Your task to perform on an android device: What's on my calendar today? Image 0: 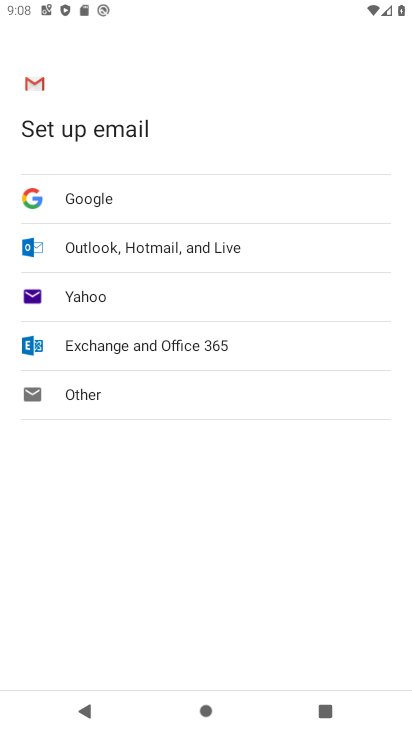
Step 0: press home button
Your task to perform on an android device: What's on my calendar today? Image 1: 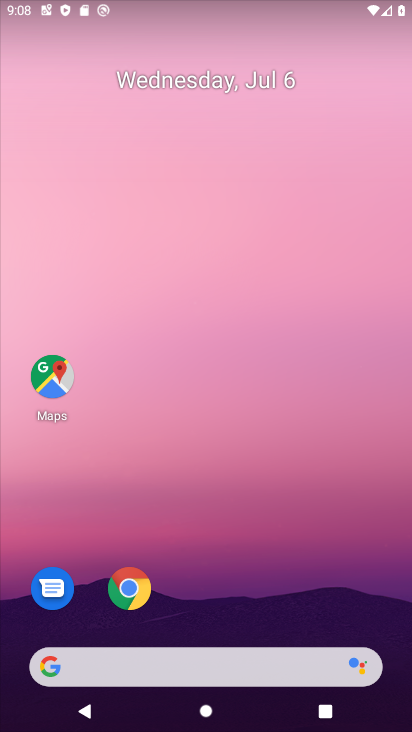
Step 1: drag from (115, 669) to (276, 32)
Your task to perform on an android device: What's on my calendar today? Image 2: 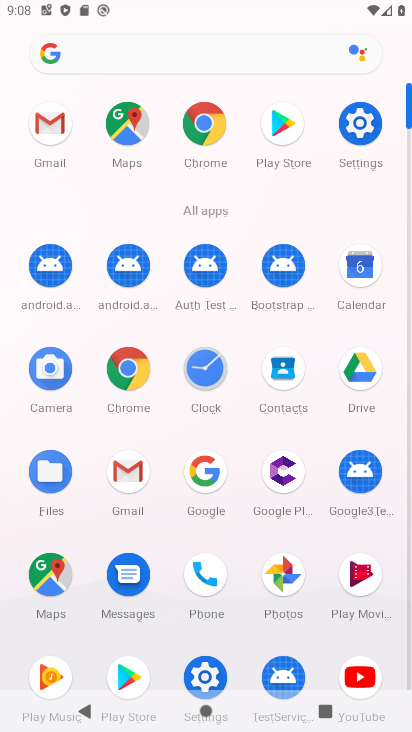
Step 2: click (352, 273)
Your task to perform on an android device: What's on my calendar today? Image 3: 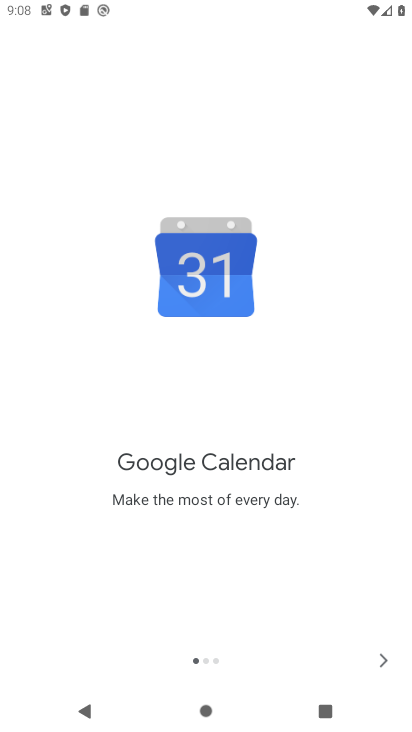
Step 3: click (387, 663)
Your task to perform on an android device: What's on my calendar today? Image 4: 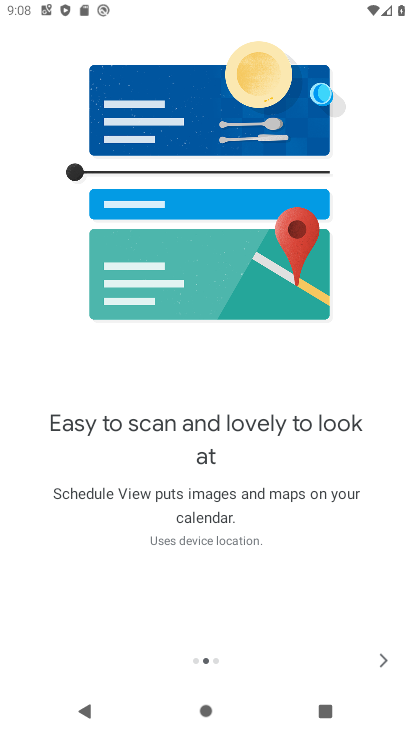
Step 4: click (387, 663)
Your task to perform on an android device: What's on my calendar today? Image 5: 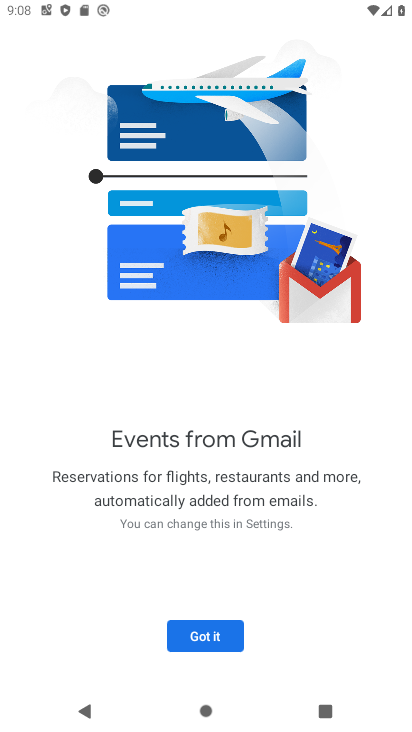
Step 5: click (192, 631)
Your task to perform on an android device: What's on my calendar today? Image 6: 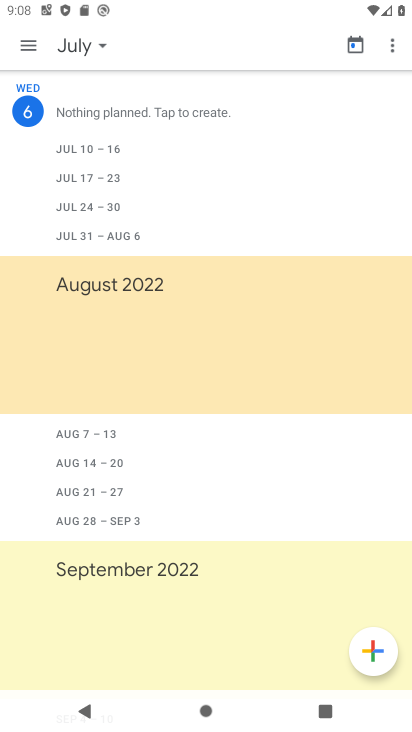
Step 6: click (92, 46)
Your task to perform on an android device: What's on my calendar today? Image 7: 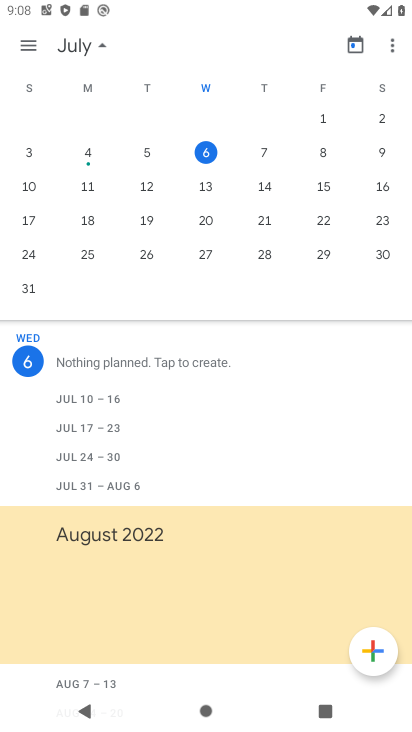
Step 7: click (208, 151)
Your task to perform on an android device: What's on my calendar today? Image 8: 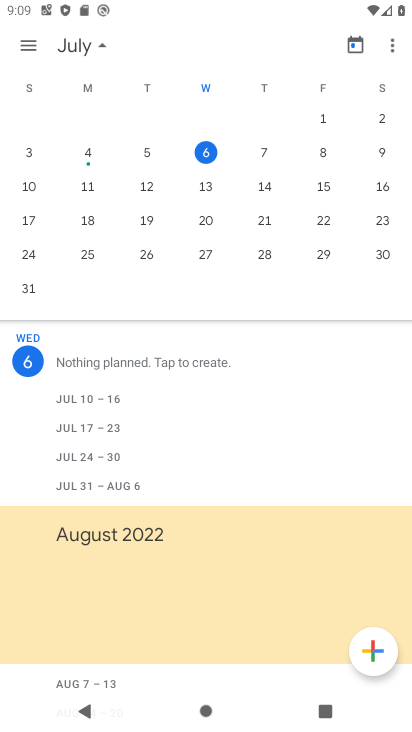
Step 8: click (32, 47)
Your task to perform on an android device: What's on my calendar today? Image 9: 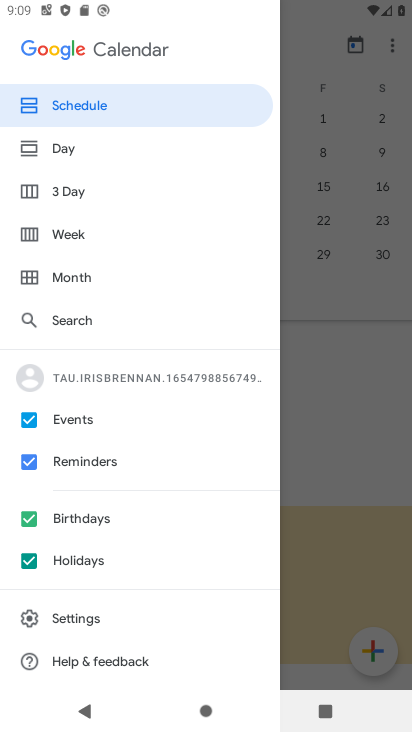
Step 9: click (79, 148)
Your task to perform on an android device: What's on my calendar today? Image 10: 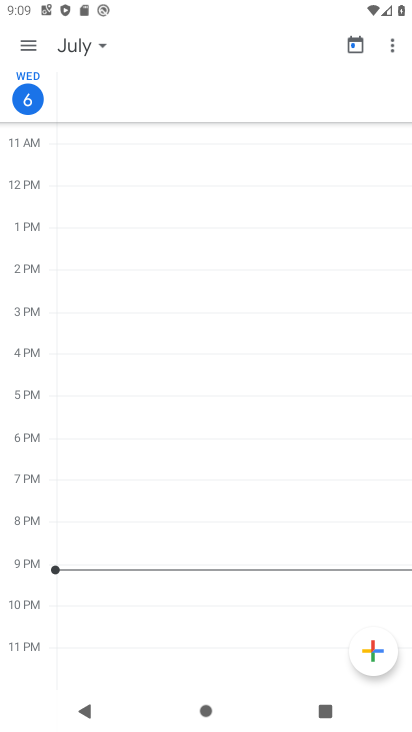
Step 10: task complete